Your task to perform on an android device: Go to Wikipedia Image 0: 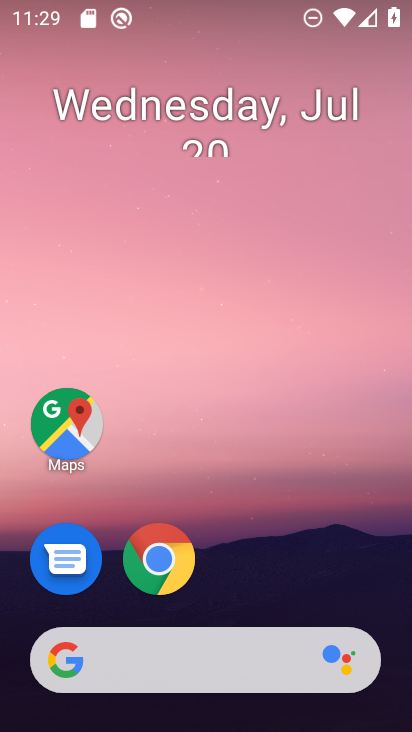
Step 0: drag from (178, 588) to (226, 189)
Your task to perform on an android device: Go to Wikipedia Image 1: 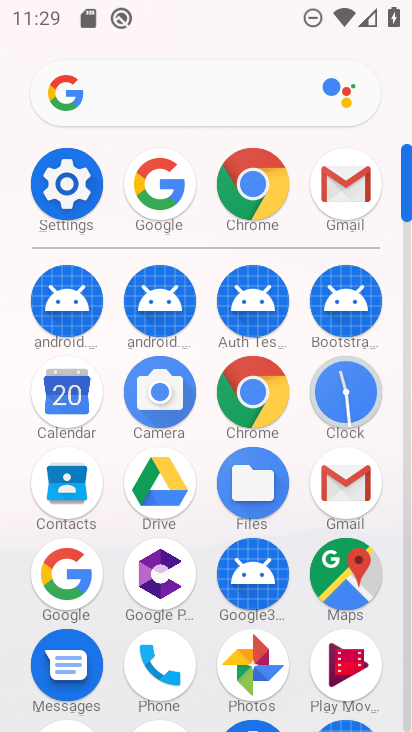
Step 1: click (253, 187)
Your task to perform on an android device: Go to Wikipedia Image 2: 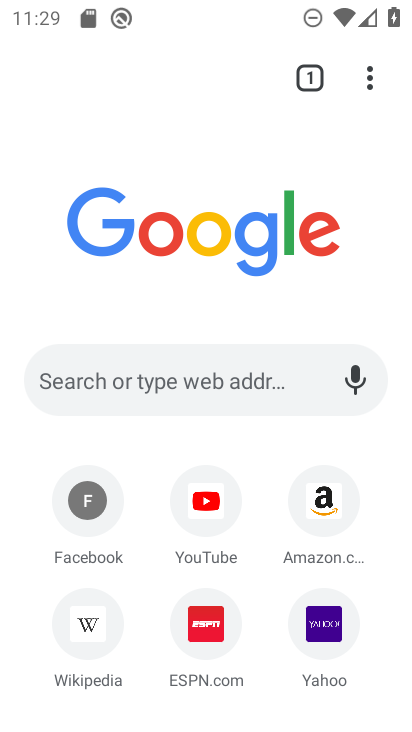
Step 2: click (91, 637)
Your task to perform on an android device: Go to Wikipedia Image 3: 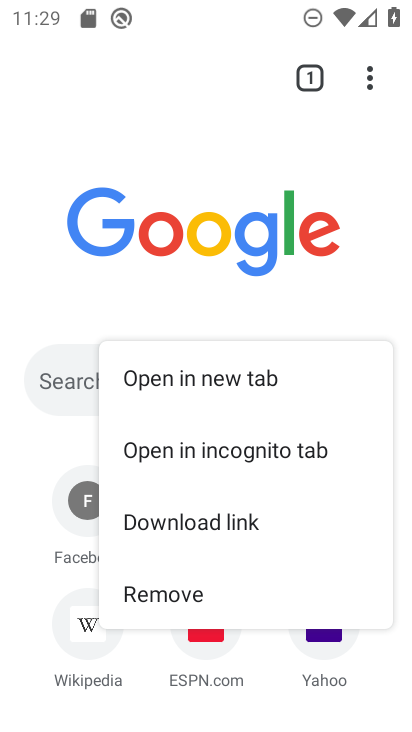
Step 3: click (72, 630)
Your task to perform on an android device: Go to Wikipedia Image 4: 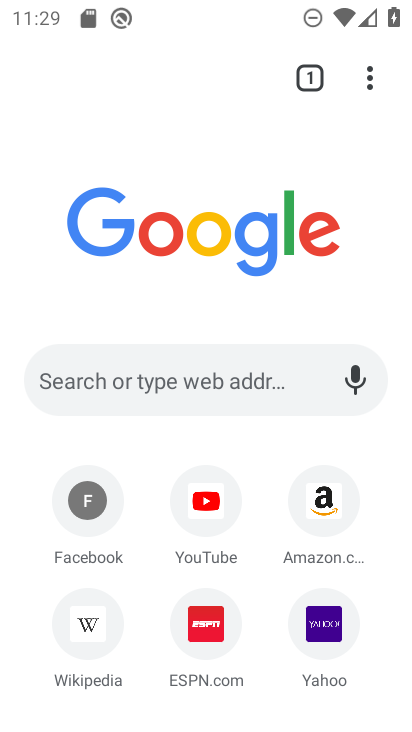
Step 4: click (73, 637)
Your task to perform on an android device: Go to Wikipedia Image 5: 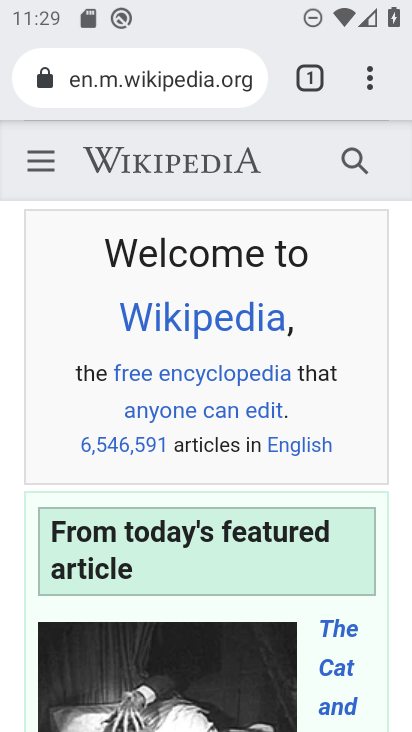
Step 5: task complete